Your task to perform on an android device: Play the last video I watched on Youtube Image 0: 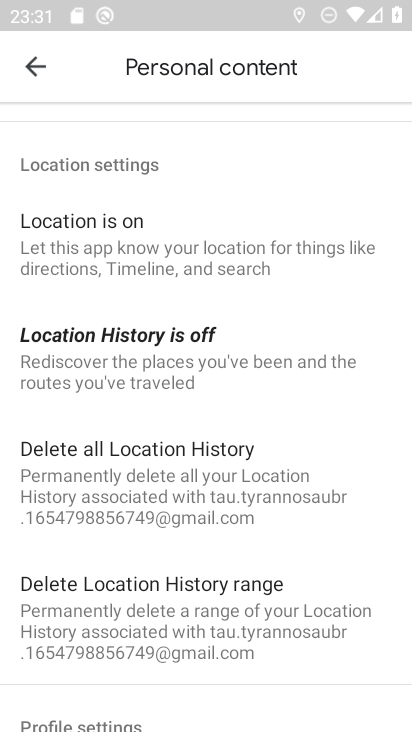
Step 0: press home button
Your task to perform on an android device: Play the last video I watched on Youtube Image 1: 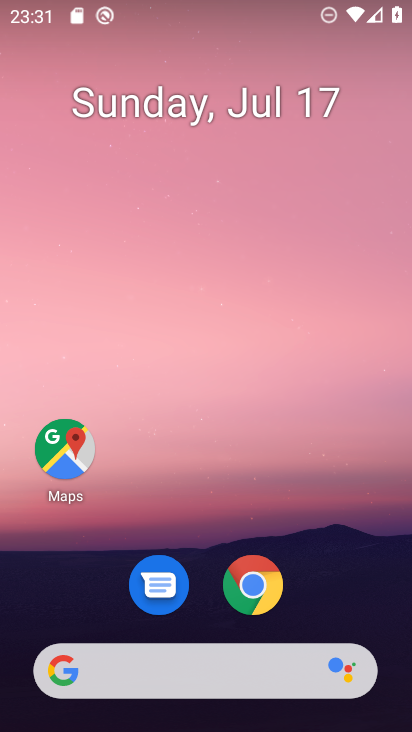
Step 1: drag from (204, 683) to (196, 79)
Your task to perform on an android device: Play the last video I watched on Youtube Image 2: 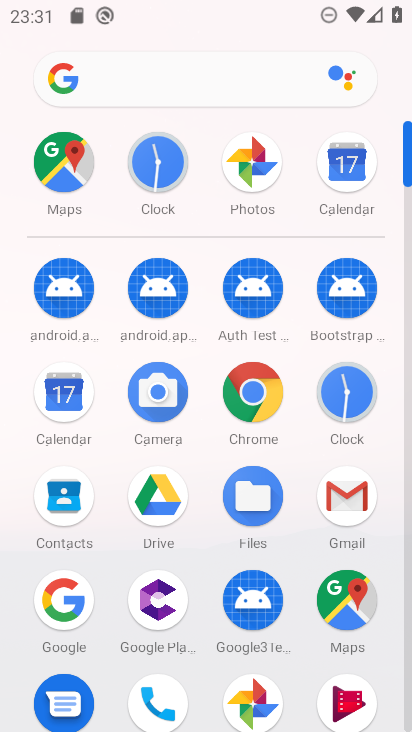
Step 2: drag from (212, 649) to (210, 145)
Your task to perform on an android device: Play the last video I watched on Youtube Image 3: 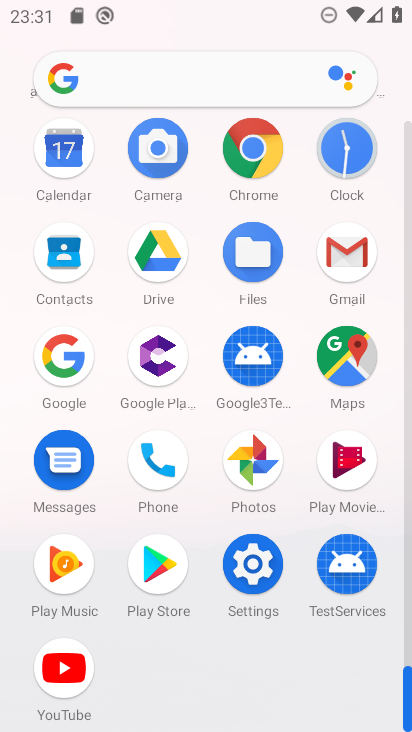
Step 3: click (71, 673)
Your task to perform on an android device: Play the last video I watched on Youtube Image 4: 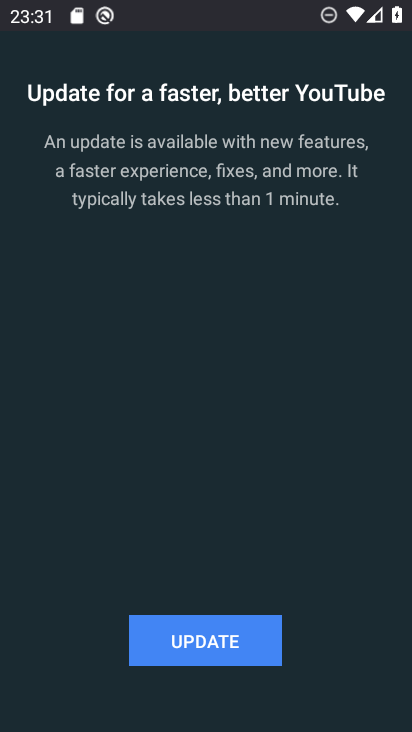
Step 4: click (212, 653)
Your task to perform on an android device: Play the last video I watched on Youtube Image 5: 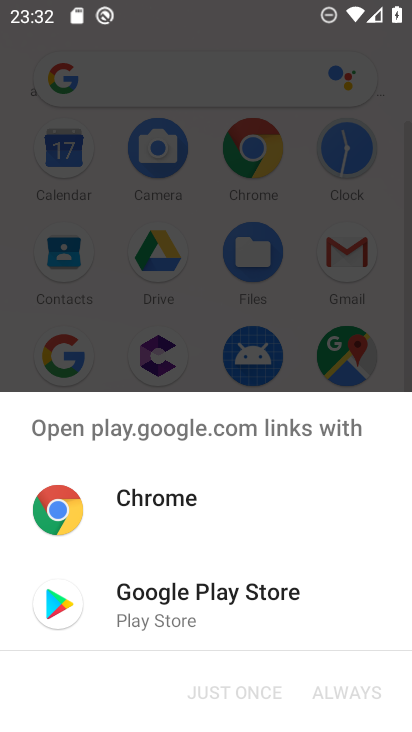
Step 5: click (184, 607)
Your task to perform on an android device: Play the last video I watched on Youtube Image 6: 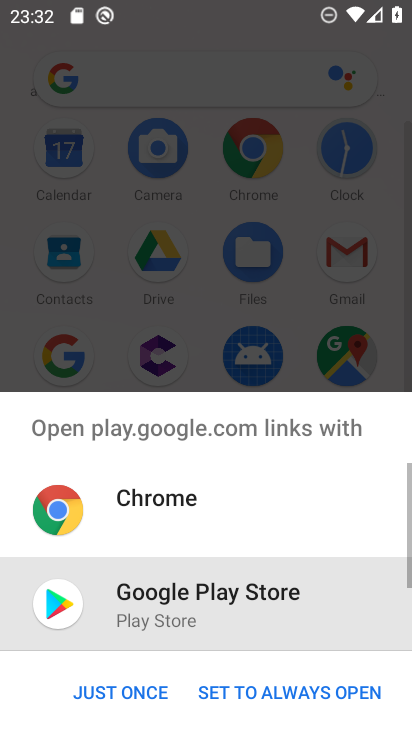
Step 6: click (121, 693)
Your task to perform on an android device: Play the last video I watched on Youtube Image 7: 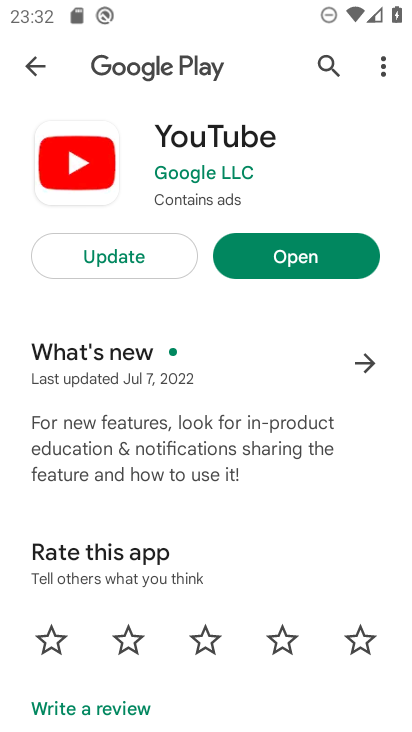
Step 7: click (129, 255)
Your task to perform on an android device: Play the last video I watched on Youtube Image 8: 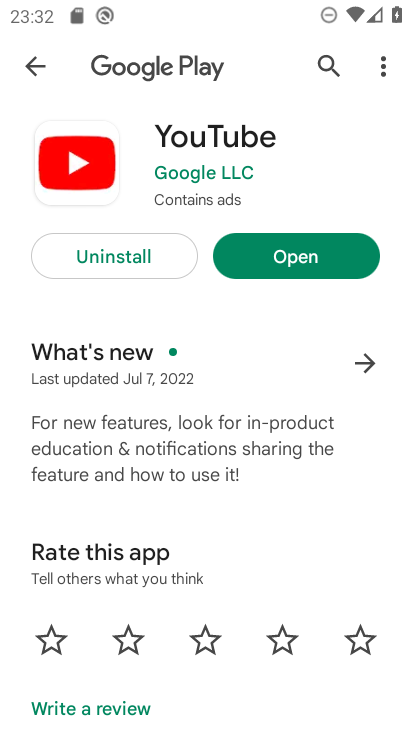
Step 8: click (299, 244)
Your task to perform on an android device: Play the last video I watched on Youtube Image 9: 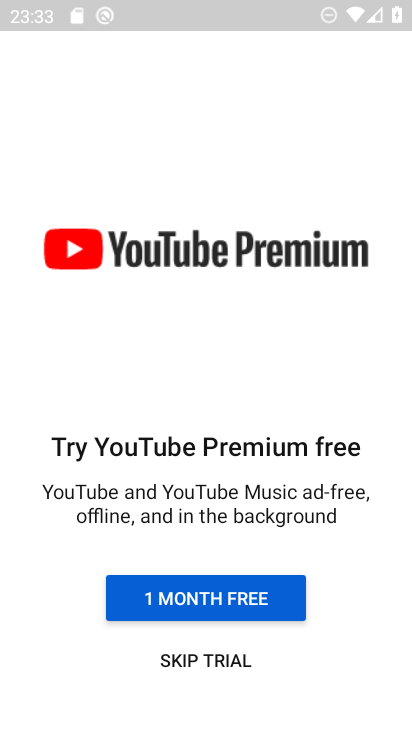
Step 9: click (209, 658)
Your task to perform on an android device: Play the last video I watched on Youtube Image 10: 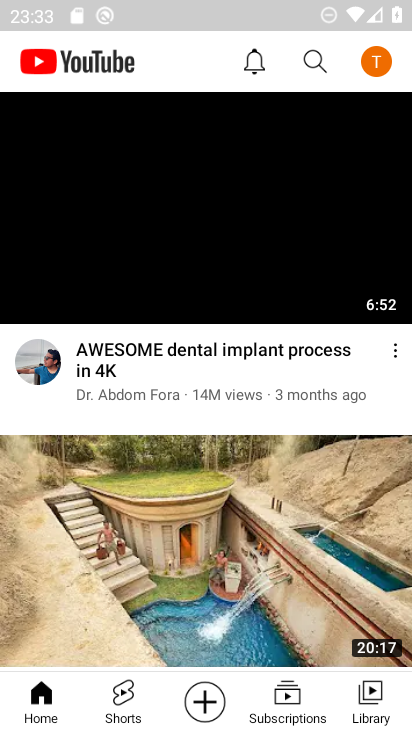
Step 10: click (372, 705)
Your task to perform on an android device: Play the last video I watched on Youtube Image 11: 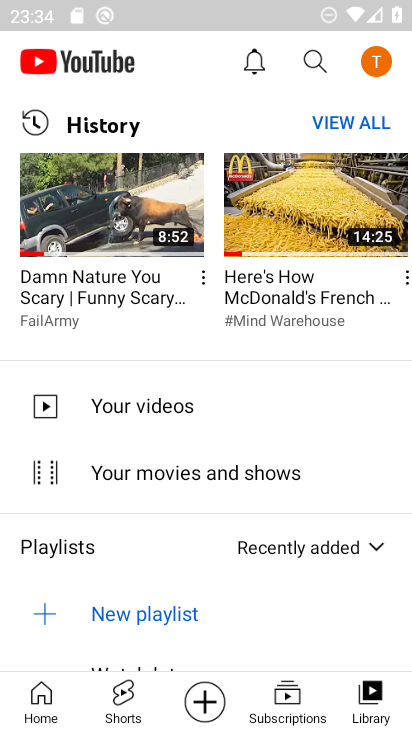
Step 11: click (124, 208)
Your task to perform on an android device: Play the last video I watched on Youtube Image 12: 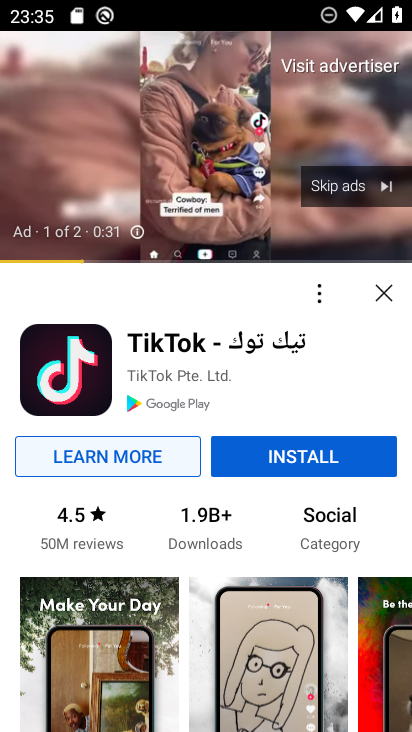
Step 12: click (331, 186)
Your task to perform on an android device: Play the last video I watched on Youtube Image 13: 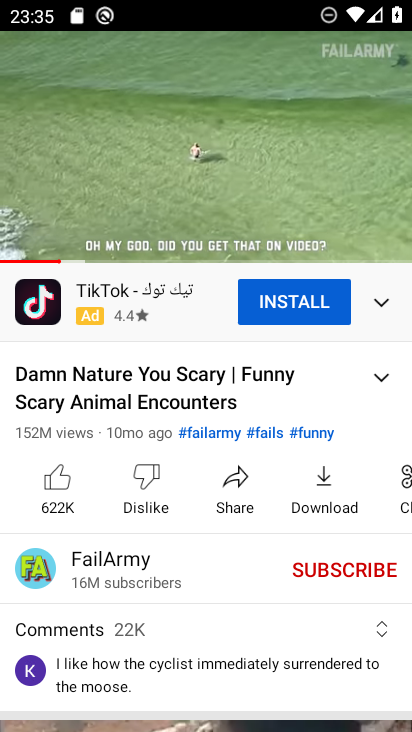
Step 13: click (199, 95)
Your task to perform on an android device: Play the last video I watched on Youtube Image 14: 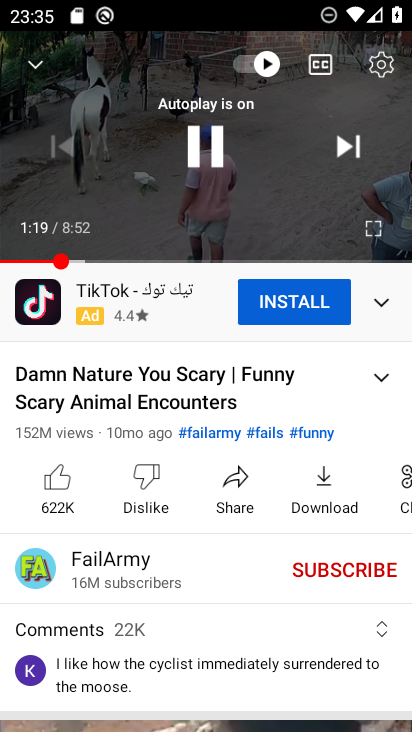
Step 14: click (217, 168)
Your task to perform on an android device: Play the last video I watched on Youtube Image 15: 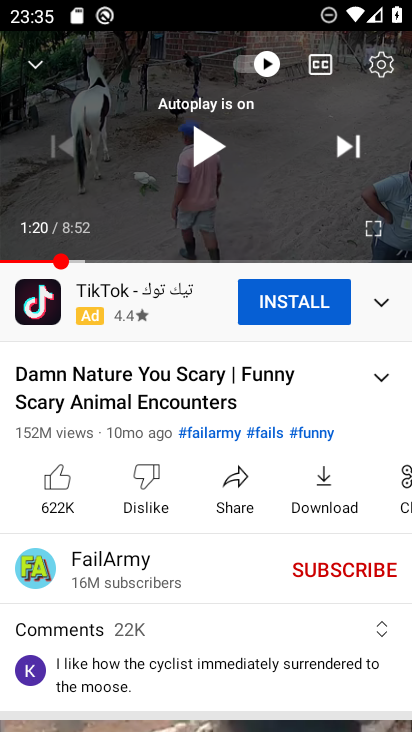
Step 15: click (208, 151)
Your task to perform on an android device: Play the last video I watched on Youtube Image 16: 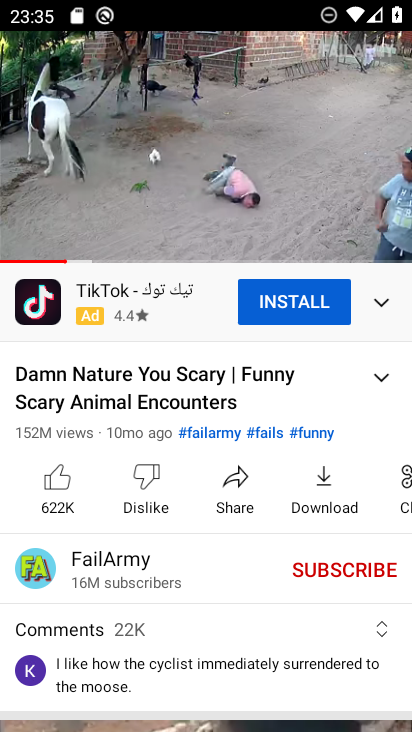
Step 16: task complete